Your task to perform on an android device: Search for bose soundlink mini on target, select the first entry, and add it to the cart. Image 0: 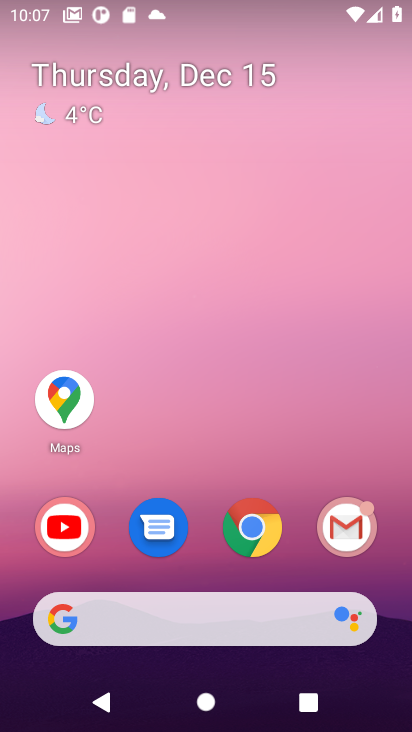
Step 0: click (250, 553)
Your task to perform on an android device: Search for bose soundlink mini on target, select the first entry, and add it to the cart. Image 1: 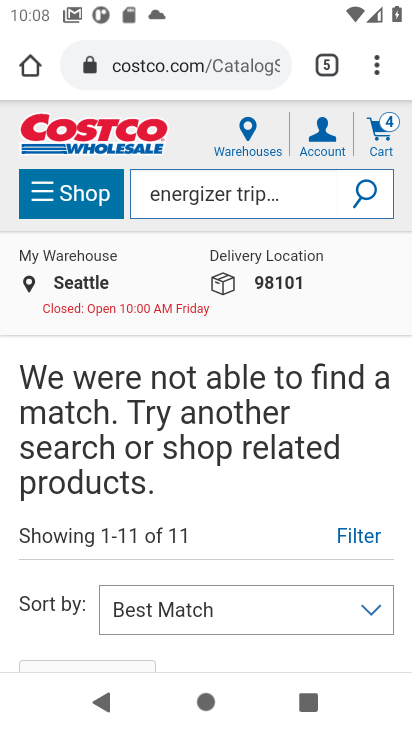
Step 1: task complete